Your task to perform on an android device: turn on bluetooth scan Image 0: 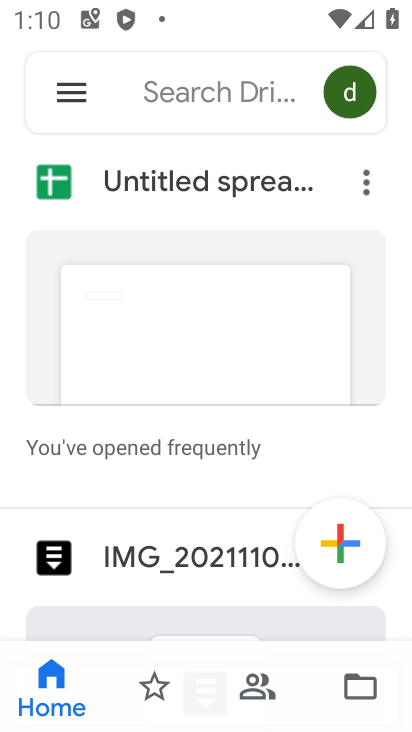
Step 0: press home button
Your task to perform on an android device: turn on bluetooth scan Image 1: 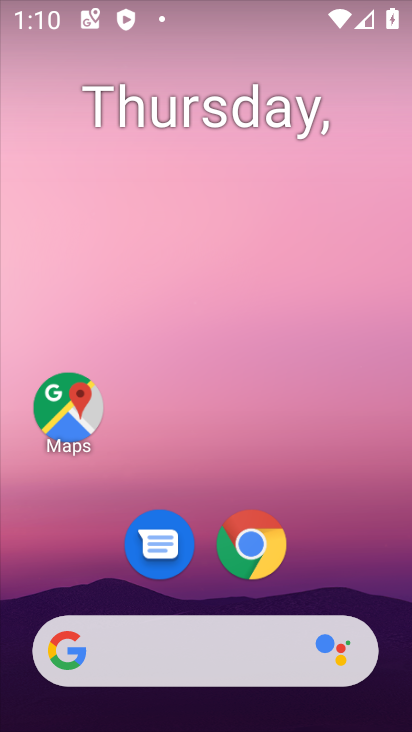
Step 1: drag from (225, 716) to (229, 20)
Your task to perform on an android device: turn on bluetooth scan Image 2: 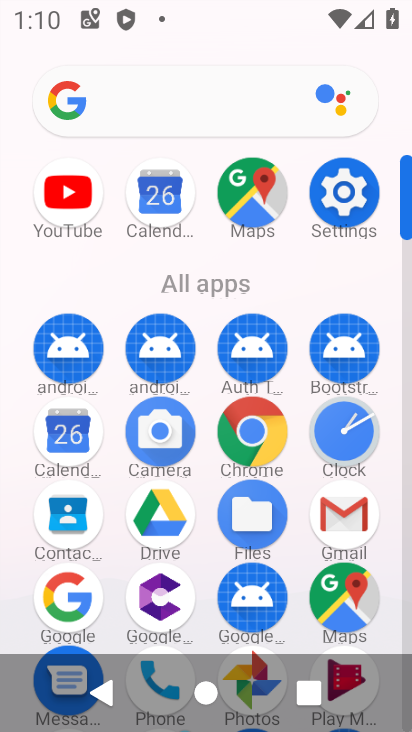
Step 2: click (325, 185)
Your task to perform on an android device: turn on bluetooth scan Image 3: 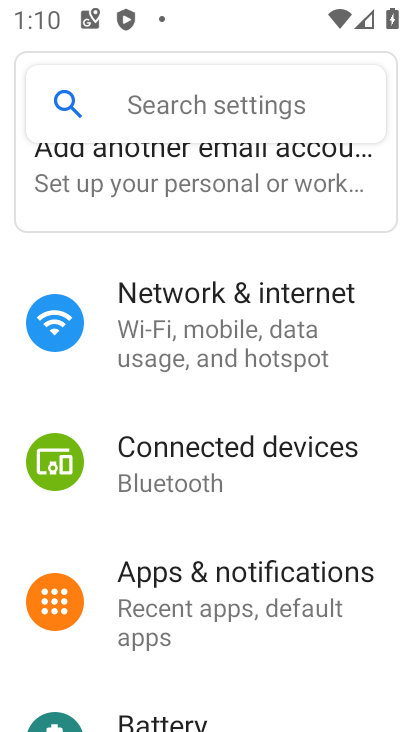
Step 3: drag from (228, 649) to (241, 275)
Your task to perform on an android device: turn on bluetooth scan Image 4: 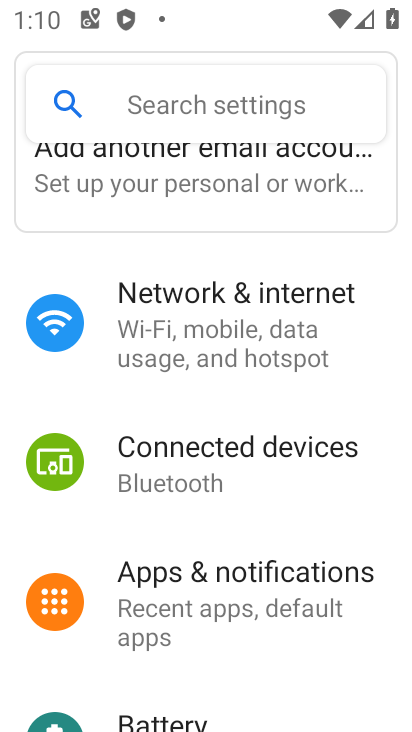
Step 4: drag from (252, 660) to (263, 332)
Your task to perform on an android device: turn on bluetooth scan Image 5: 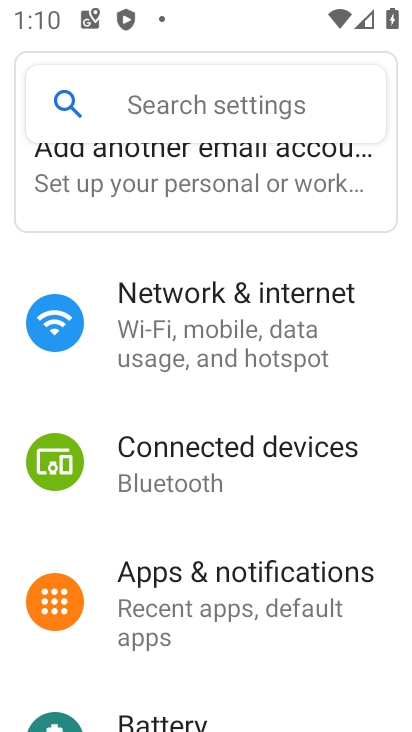
Step 5: drag from (228, 680) to (225, 205)
Your task to perform on an android device: turn on bluetooth scan Image 6: 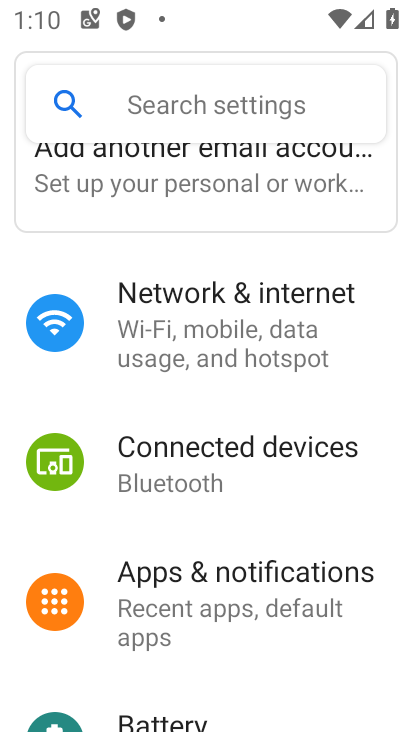
Step 6: drag from (193, 632) to (216, 210)
Your task to perform on an android device: turn on bluetooth scan Image 7: 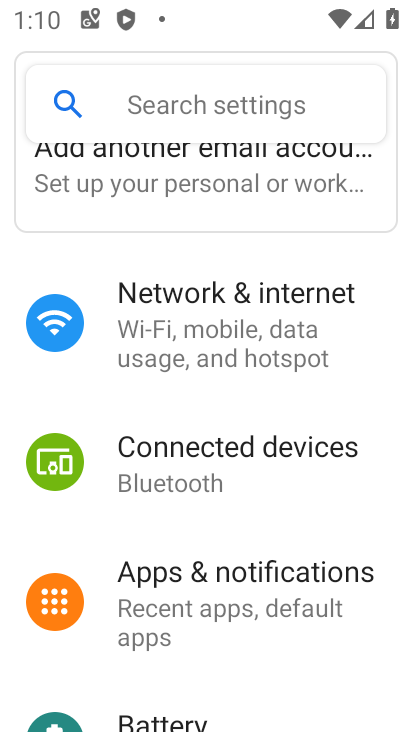
Step 7: drag from (141, 627) to (153, 157)
Your task to perform on an android device: turn on bluetooth scan Image 8: 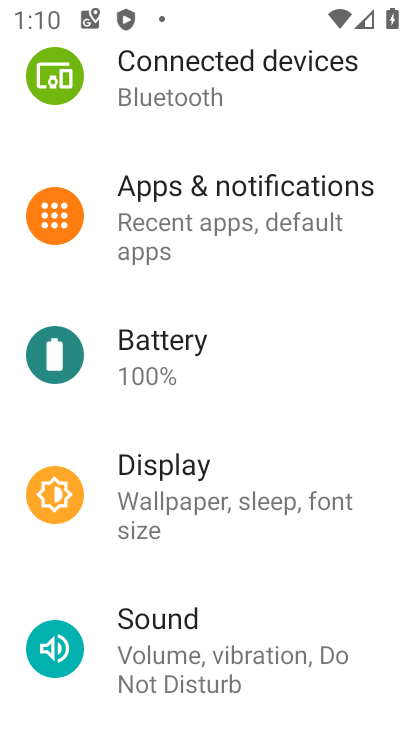
Step 8: drag from (184, 600) to (189, 142)
Your task to perform on an android device: turn on bluetooth scan Image 9: 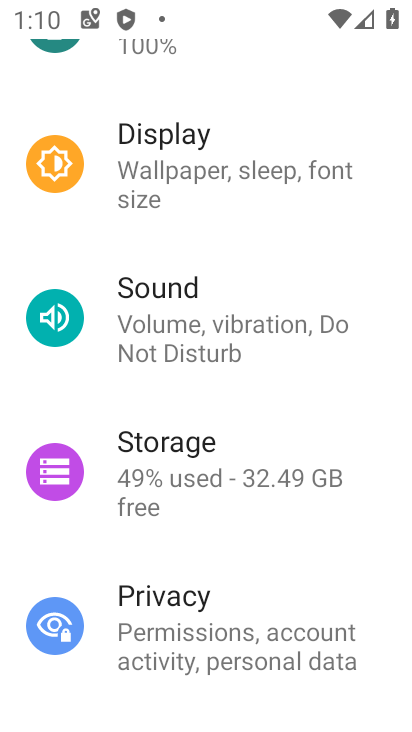
Step 9: drag from (201, 643) to (213, 200)
Your task to perform on an android device: turn on bluetooth scan Image 10: 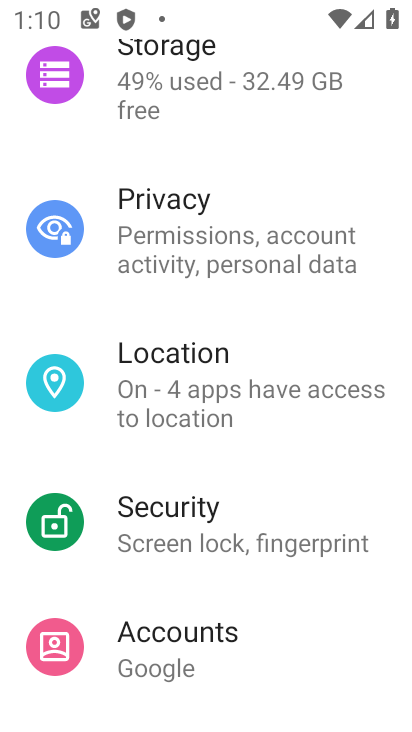
Step 10: click (193, 379)
Your task to perform on an android device: turn on bluetooth scan Image 11: 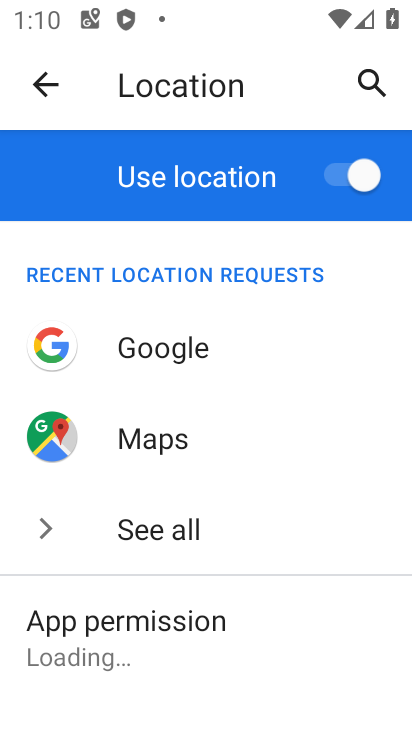
Step 11: drag from (254, 655) to (270, 281)
Your task to perform on an android device: turn on bluetooth scan Image 12: 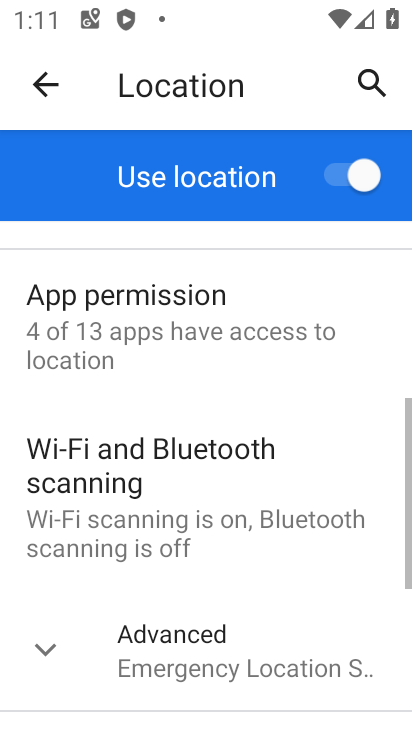
Step 12: click (137, 474)
Your task to perform on an android device: turn on bluetooth scan Image 13: 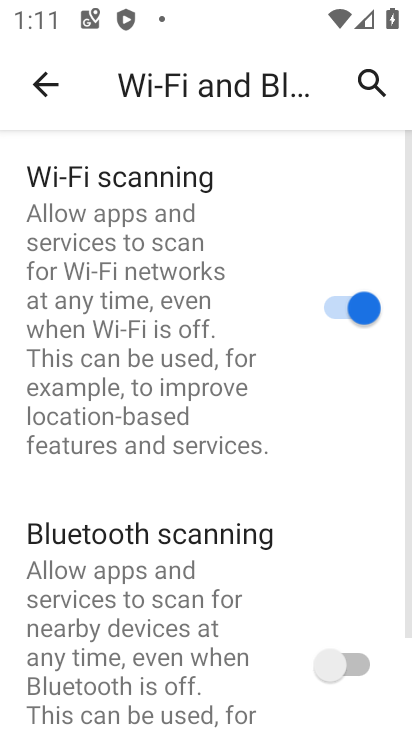
Step 13: click (361, 662)
Your task to perform on an android device: turn on bluetooth scan Image 14: 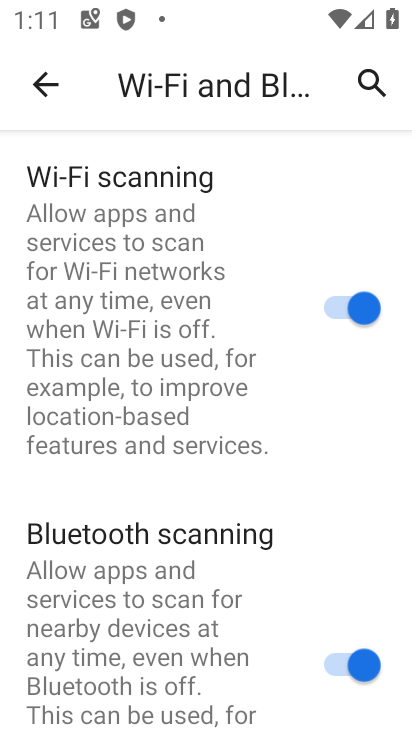
Step 14: task complete